Your task to perform on an android device: toggle javascript in the chrome app Image 0: 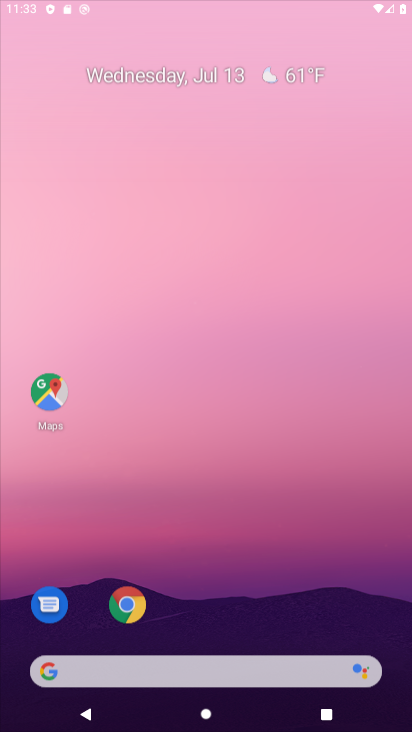
Step 0: click (217, 719)
Your task to perform on an android device: toggle javascript in the chrome app Image 1: 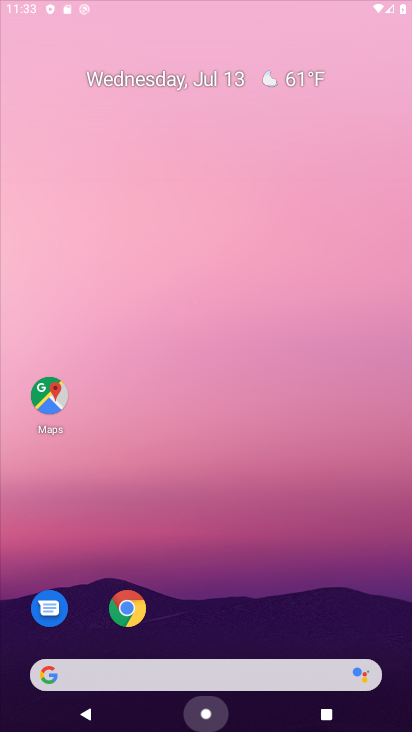
Step 1: drag from (229, 377) to (229, 294)
Your task to perform on an android device: toggle javascript in the chrome app Image 2: 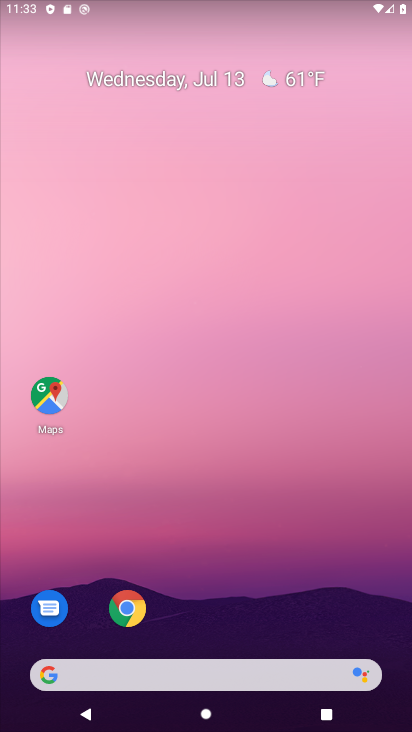
Step 2: drag from (180, 590) to (202, 103)
Your task to perform on an android device: toggle javascript in the chrome app Image 3: 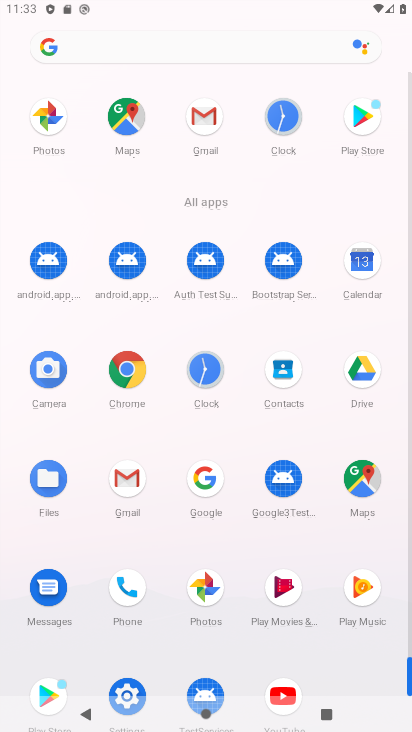
Step 3: drag from (175, 626) to (184, 214)
Your task to perform on an android device: toggle javascript in the chrome app Image 4: 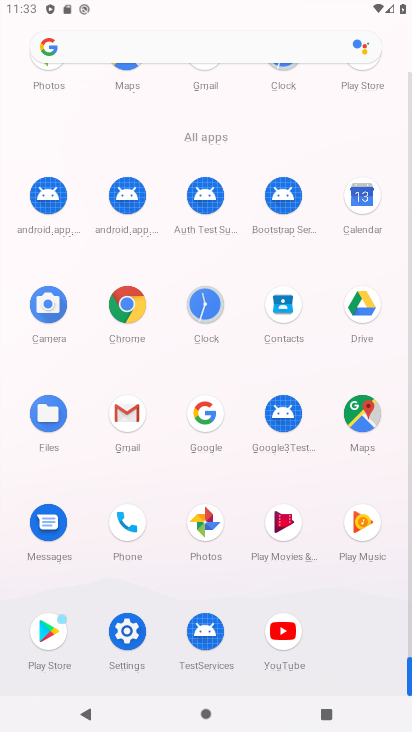
Step 4: drag from (190, 364) to (190, 110)
Your task to perform on an android device: toggle javascript in the chrome app Image 5: 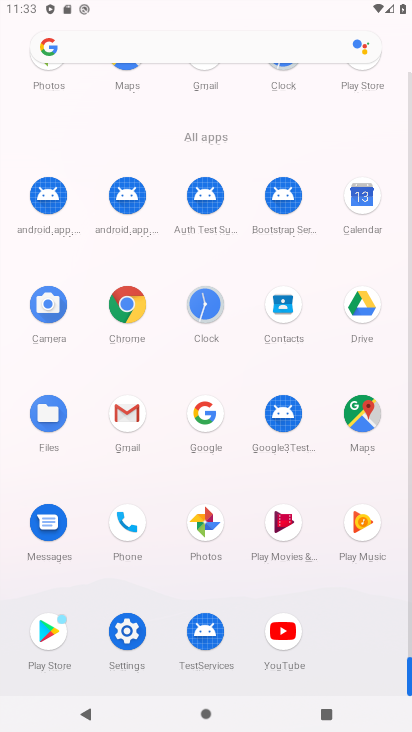
Step 5: click (122, 301)
Your task to perform on an android device: toggle javascript in the chrome app Image 6: 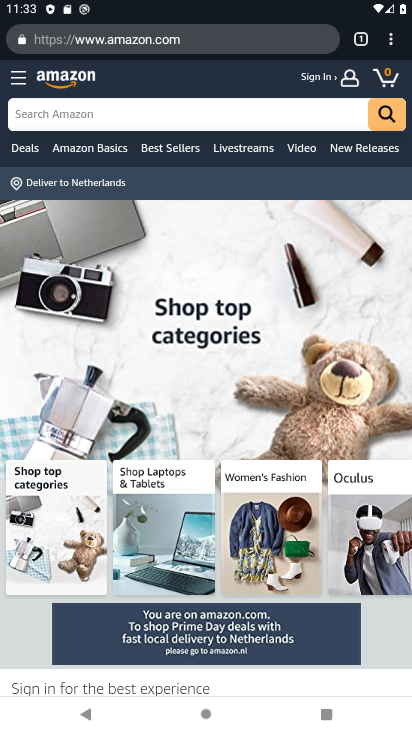
Step 6: drag from (206, 473) to (227, 199)
Your task to perform on an android device: toggle javascript in the chrome app Image 7: 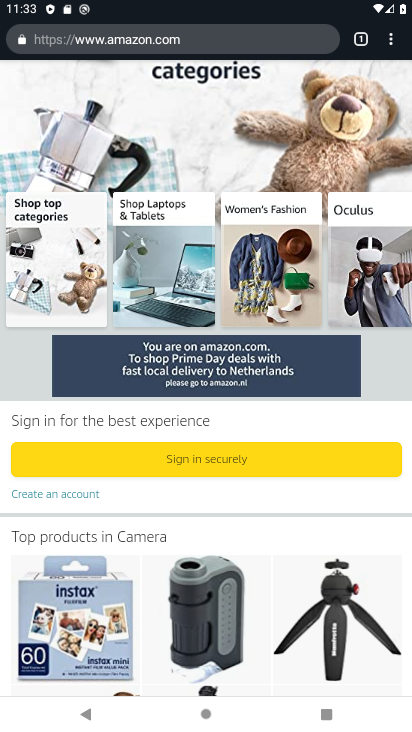
Step 7: drag from (227, 182) to (254, 592)
Your task to perform on an android device: toggle javascript in the chrome app Image 8: 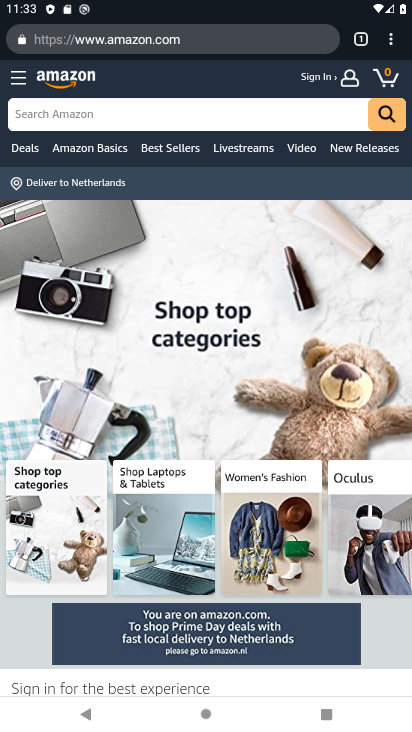
Step 8: click (392, 38)
Your task to perform on an android device: toggle javascript in the chrome app Image 9: 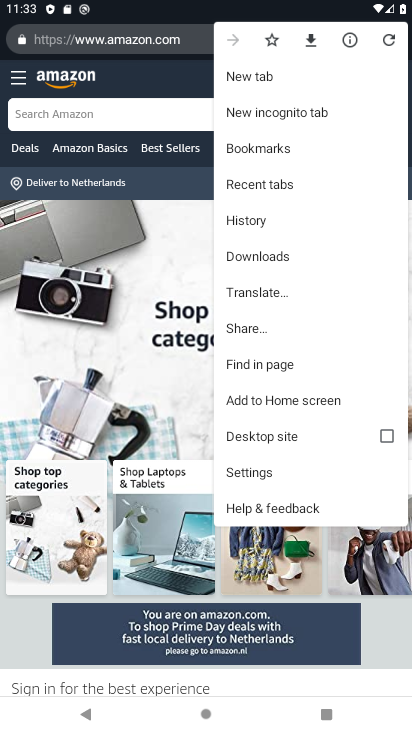
Step 9: click (260, 469)
Your task to perform on an android device: toggle javascript in the chrome app Image 10: 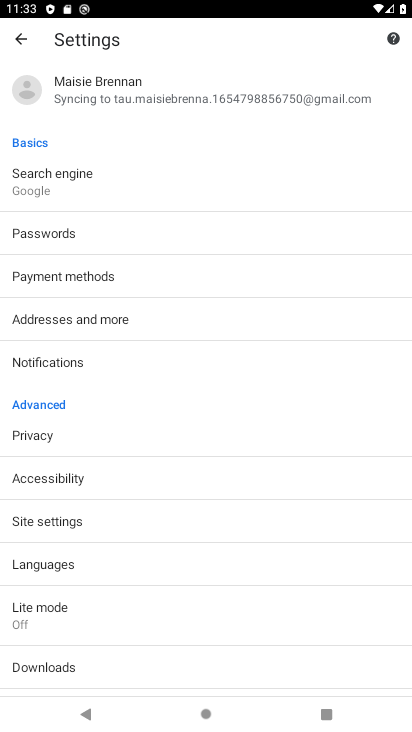
Step 10: drag from (169, 584) to (171, 228)
Your task to perform on an android device: toggle javascript in the chrome app Image 11: 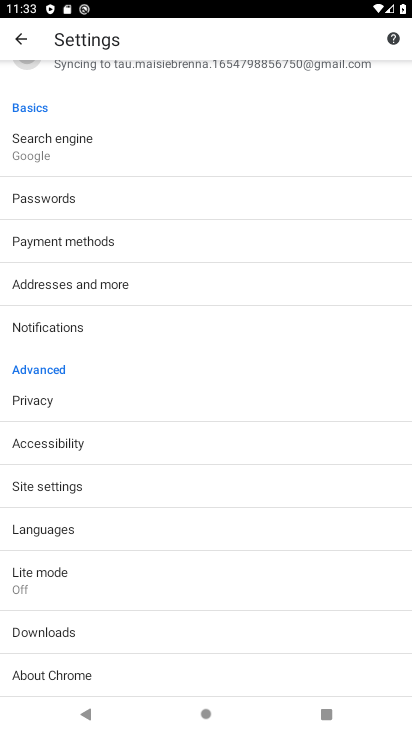
Step 11: click (77, 492)
Your task to perform on an android device: toggle javascript in the chrome app Image 12: 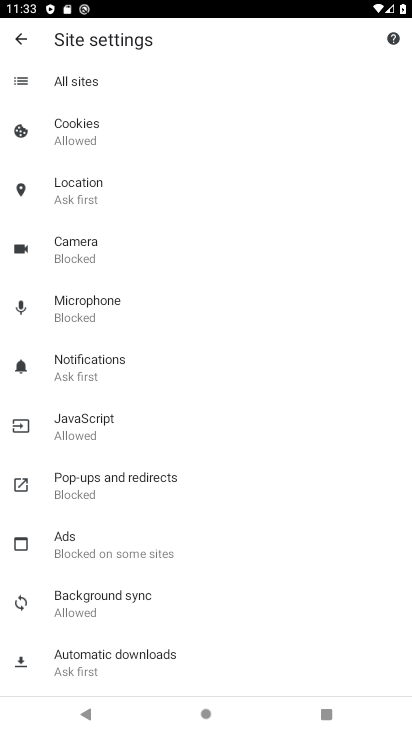
Step 12: click (102, 432)
Your task to perform on an android device: toggle javascript in the chrome app Image 13: 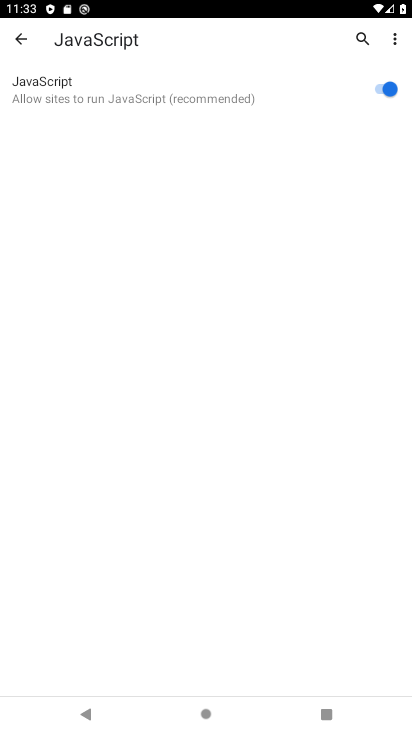
Step 13: drag from (183, 495) to (211, 316)
Your task to perform on an android device: toggle javascript in the chrome app Image 14: 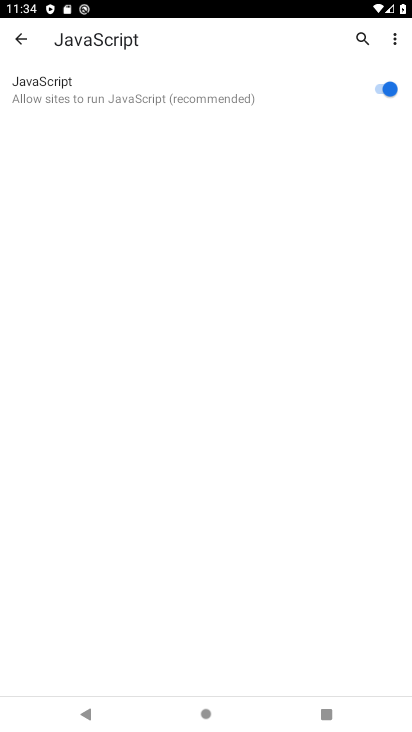
Step 14: click (390, 93)
Your task to perform on an android device: toggle javascript in the chrome app Image 15: 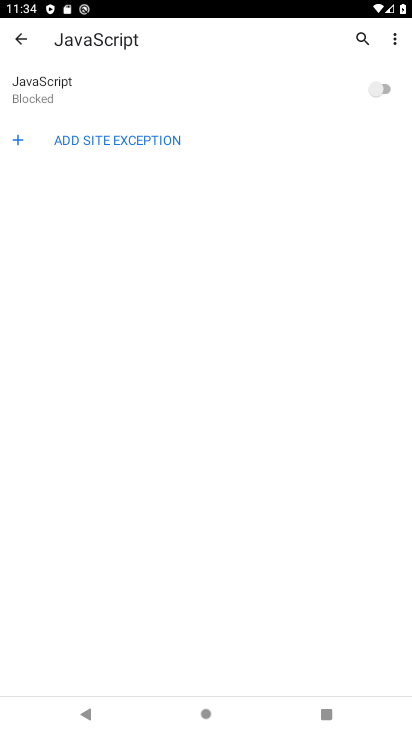
Step 15: task complete